Your task to perform on an android device: Go to notification settings Image 0: 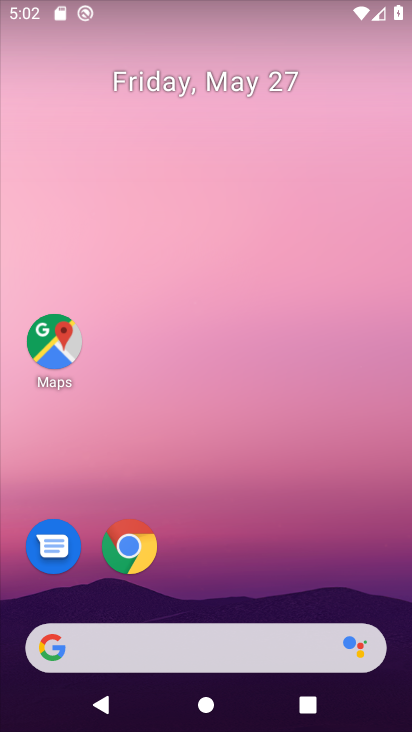
Step 0: drag from (312, 575) to (212, 34)
Your task to perform on an android device: Go to notification settings Image 1: 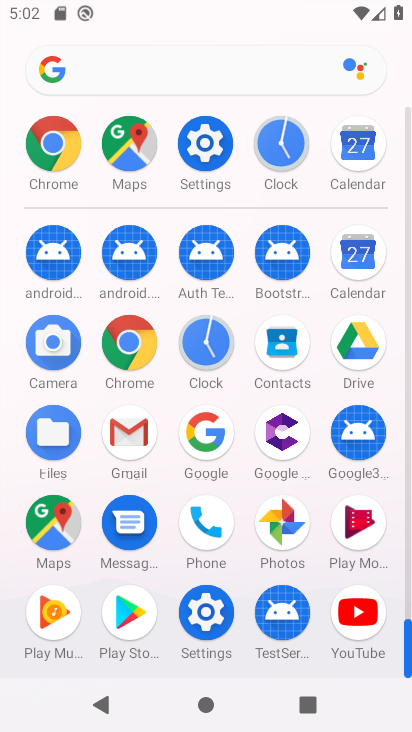
Step 1: drag from (10, 561) to (11, 238)
Your task to perform on an android device: Go to notification settings Image 2: 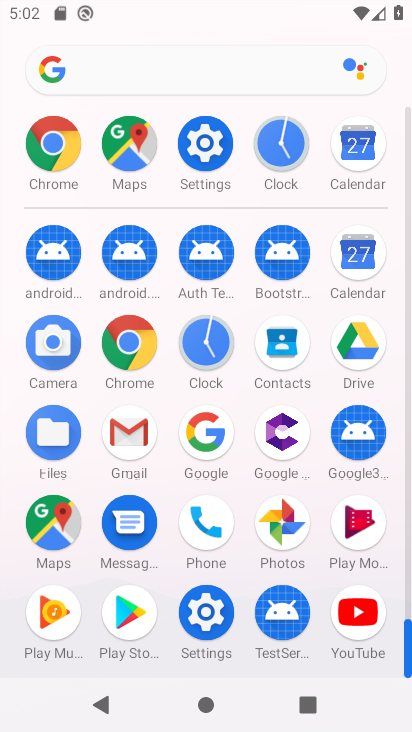
Step 2: click (204, 604)
Your task to perform on an android device: Go to notification settings Image 3: 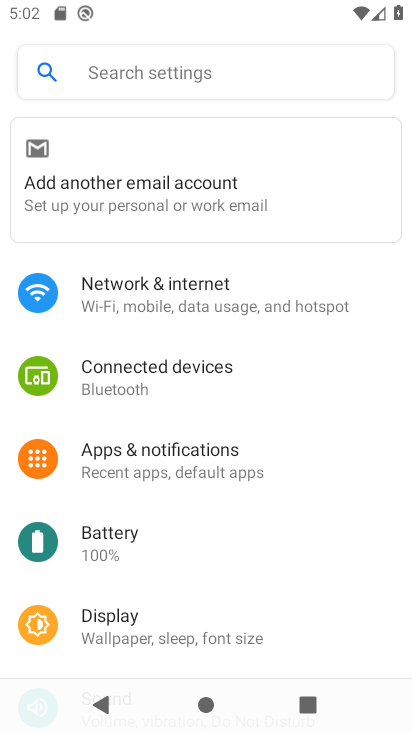
Step 3: click (180, 471)
Your task to perform on an android device: Go to notification settings Image 4: 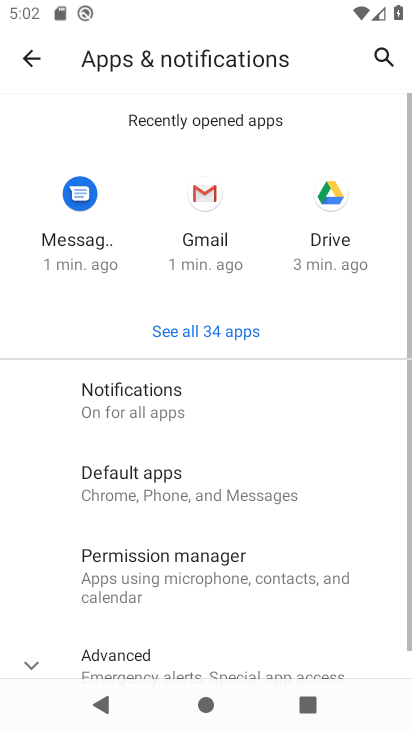
Step 4: click (60, 653)
Your task to perform on an android device: Go to notification settings Image 5: 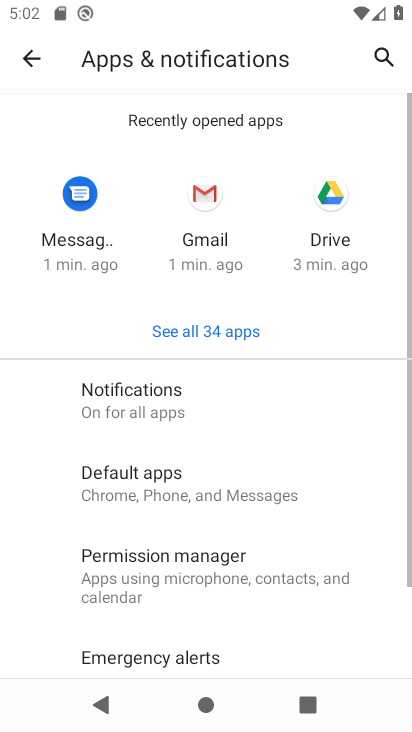
Step 5: drag from (291, 510) to (319, 289)
Your task to perform on an android device: Go to notification settings Image 6: 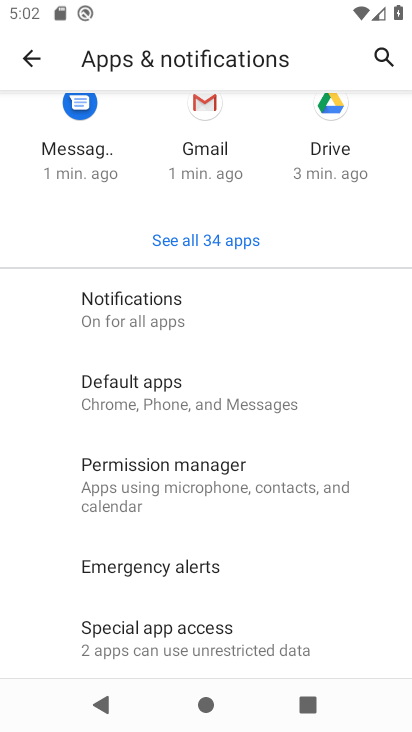
Step 6: click (150, 300)
Your task to perform on an android device: Go to notification settings Image 7: 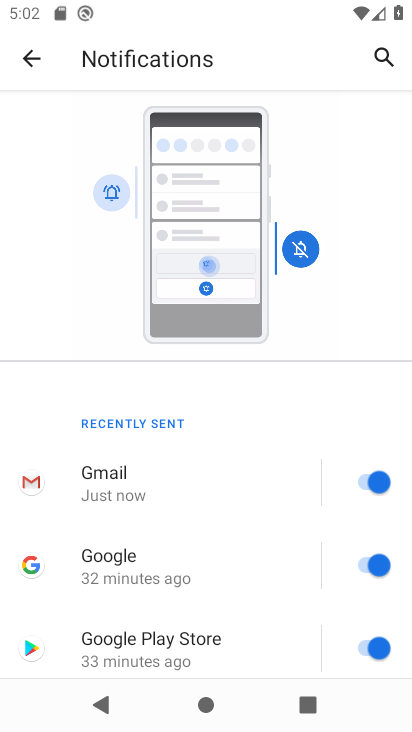
Step 7: drag from (262, 603) to (226, 182)
Your task to perform on an android device: Go to notification settings Image 8: 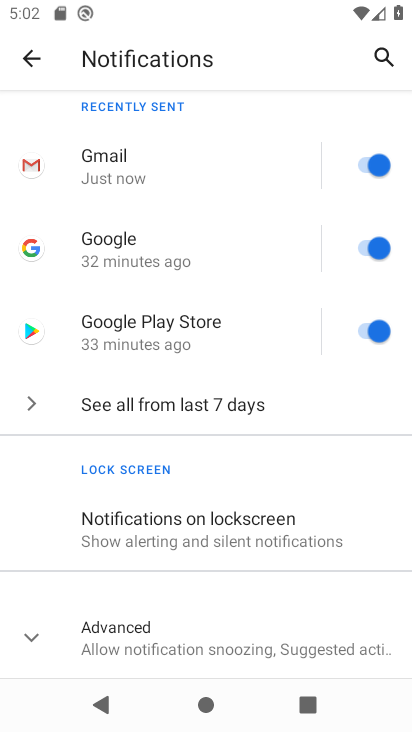
Step 8: click (46, 628)
Your task to perform on an android device: Go to notification settings Image 9: 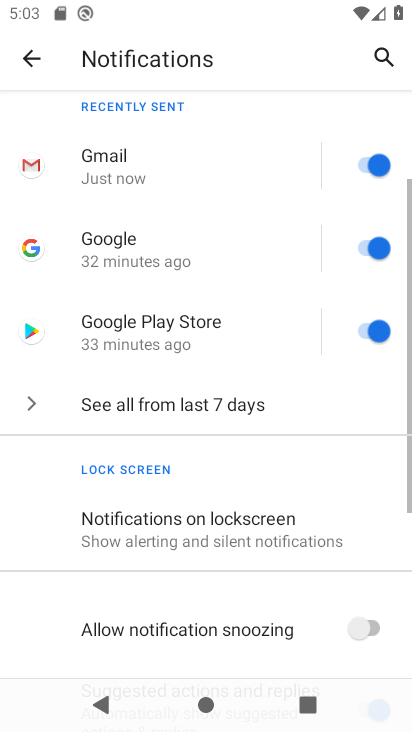
Step 9: task complete